Your task to perform on an android device: Search for Mexican restaurants on Maps Image 0: 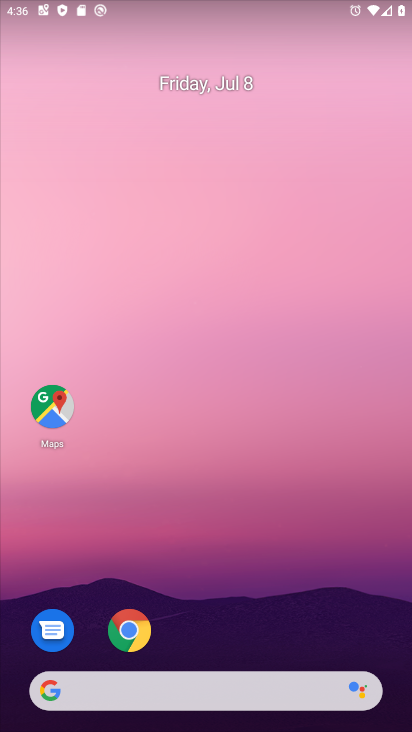
Step 0: click (50, 404)
Your task to perform on an android device: Search for Mexican restaurants on Maps Image 1: 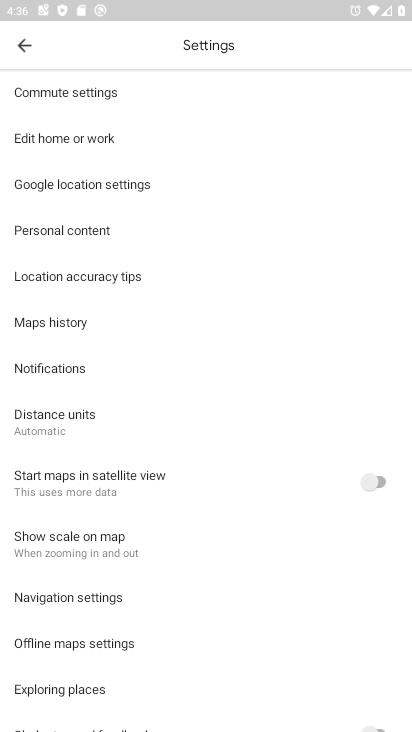
Step 1: press back button
Your task to perform on an android device: Search for Mexican restaurants on Maps Image 2: 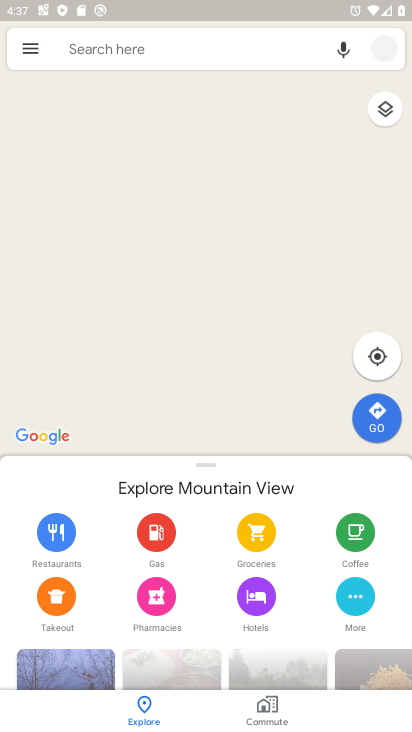
Step 2: click (246, 49)
Your task to perform on an android device: Search for Mexican restaurants on Maps Image 3: 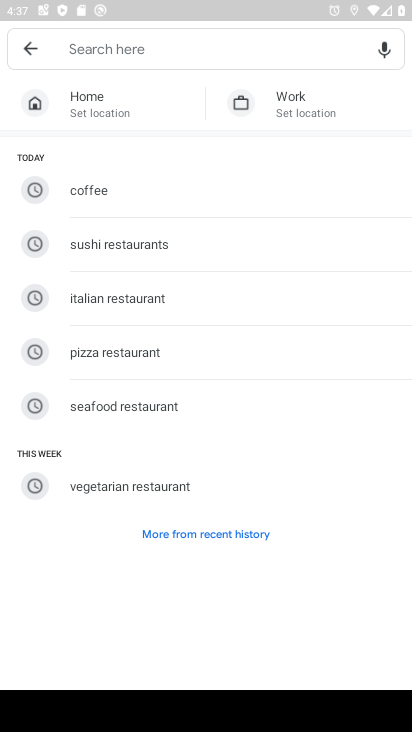
Step 3: type "Mexican restaurants"
Your task to perform on an android device: Search for Mexican restaurants on Maps Image 4: 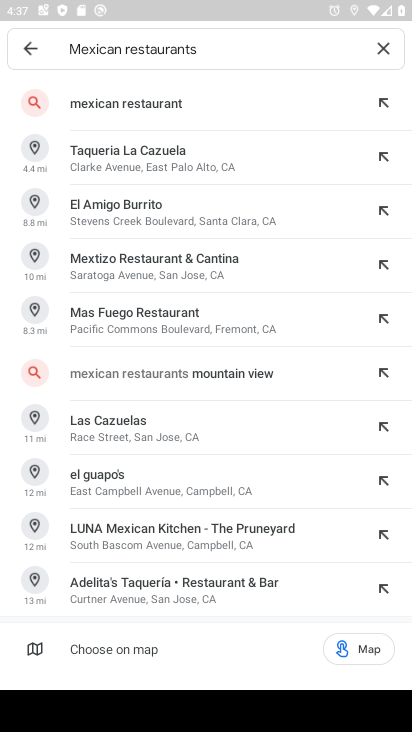
Step 4: click (167, 113)
Your task to perform on an android device: Search for Mexican restaurants on Maps Image 5: 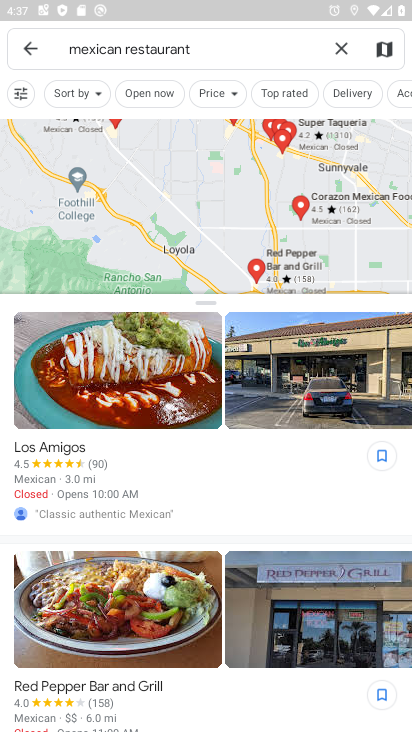
Step 5: task complete